Your task to perform on an android device: find photos in the google photos app Image 0: 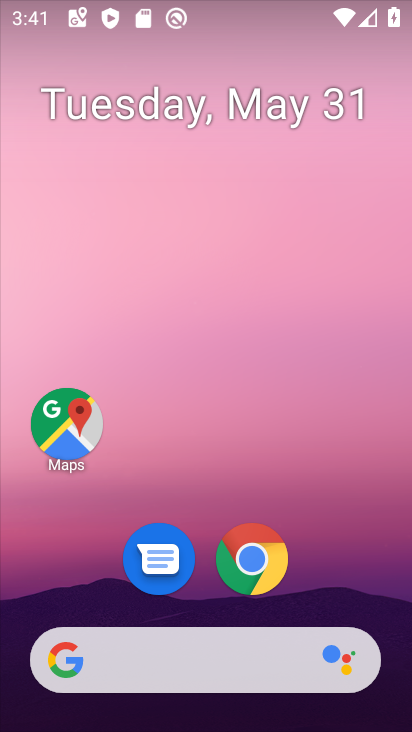
Step 0: drag from (175, 715) to (191, 170)
Your task to perform on an android device: find photos in the google photos app Image 1: 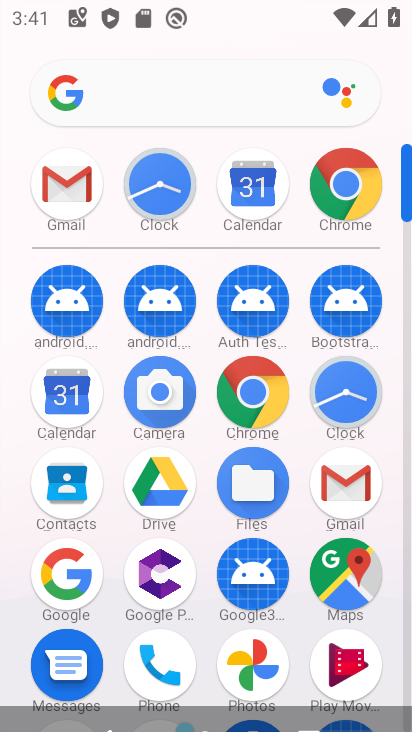
Step 1: click (253, 646)
Your task to perform on an android device: find photos in the google photos app Image 2: 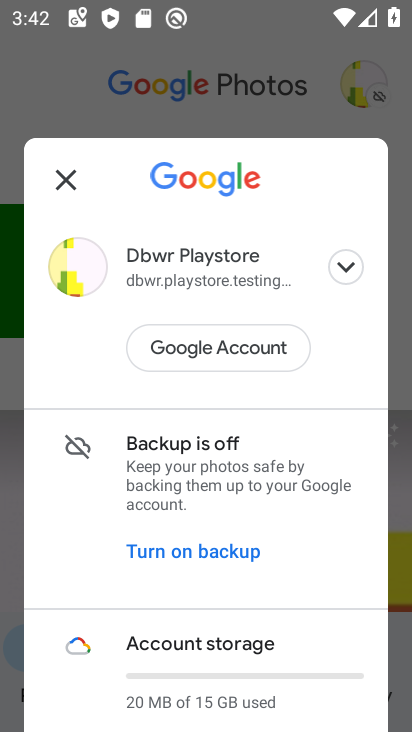
Step 2: click (63, 176)
Your task to perform on an android device: find photos in the google photos app Image 3: 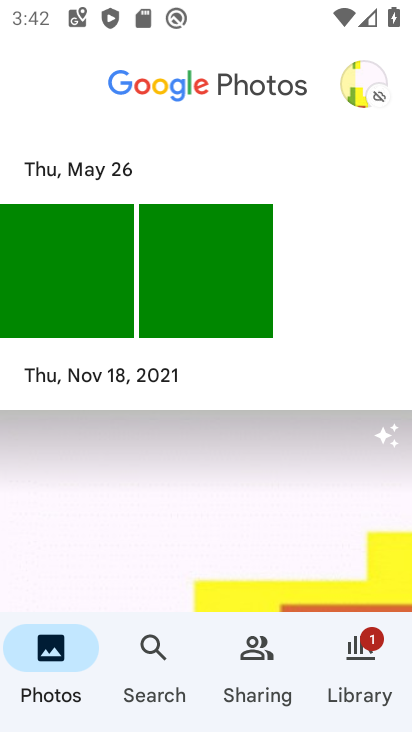
Step 3: click (76, 282)
Your task to perform on an android device: find photos in the google photos app Image 4: 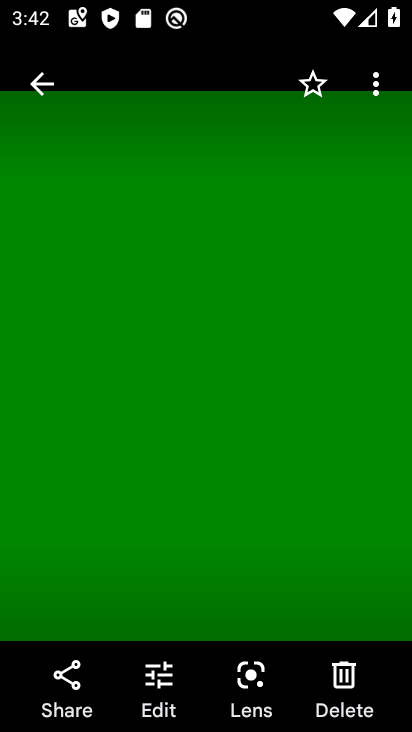
Step 4: task complete